Your task to perform on an android device: Search for the new Jordans on Nike.com Image 0: 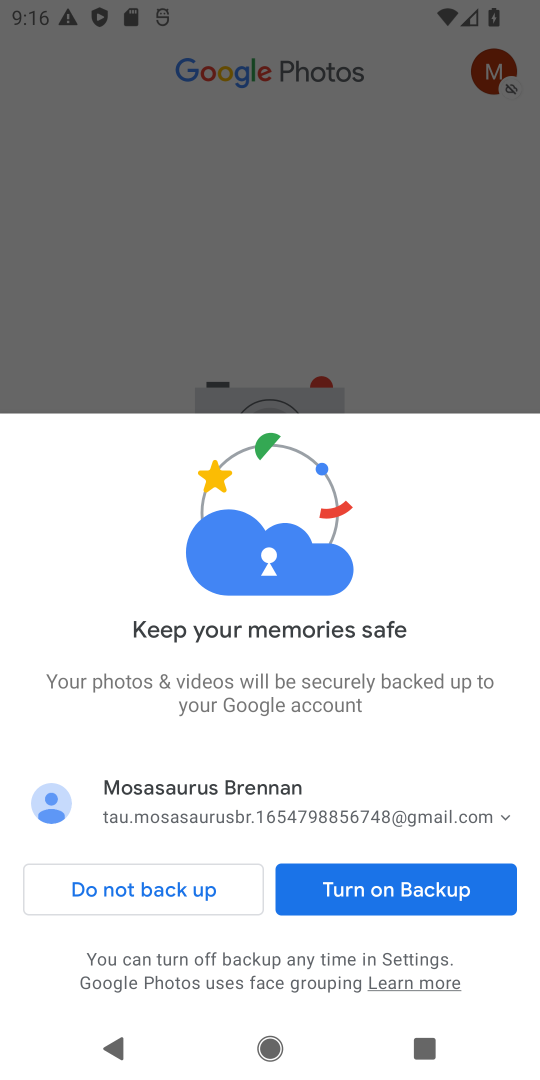
Step 0: press home button
Your task to perform on an android device: Search for the new Jordans on Nike.com Image 1: 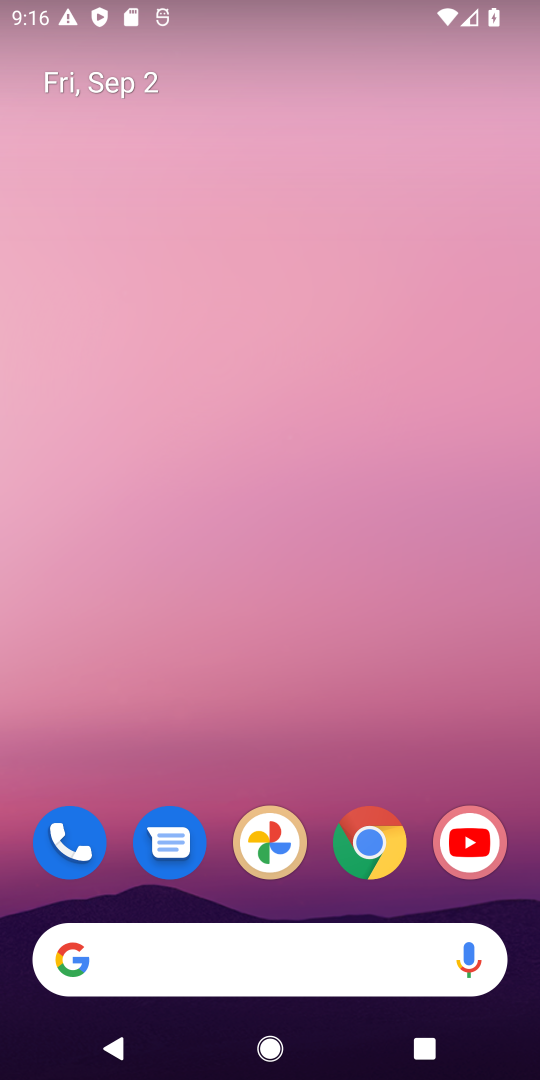
Step 1: drag from (159, 886) to (294, 181)
Your task to perform on an android device: Search for the new Jordans on Nike.com Image 2: 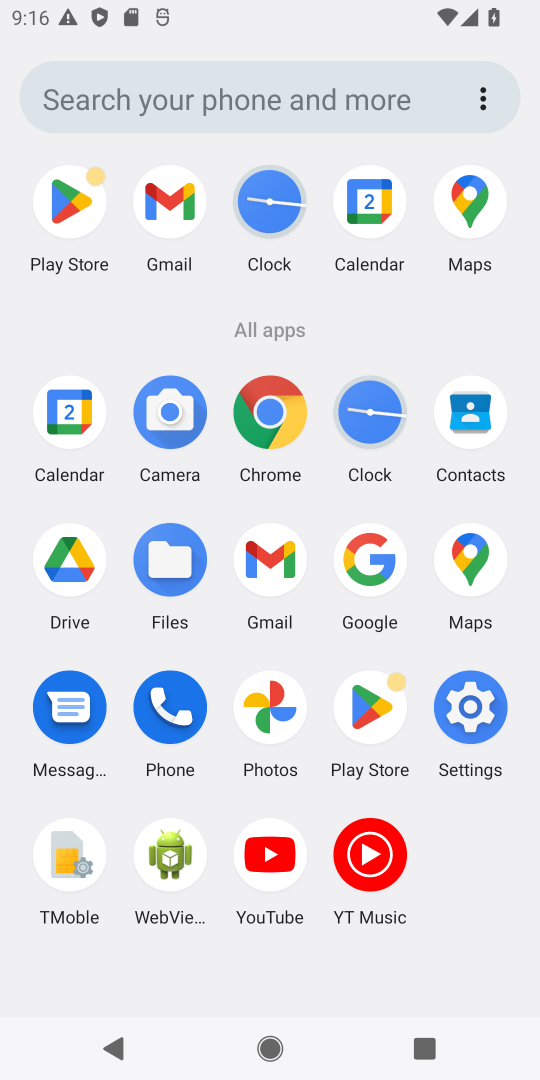
Step 2: click (262, 416)
Your task to perform on an android device: Search for the new Jordans on Nike.com Image 3: 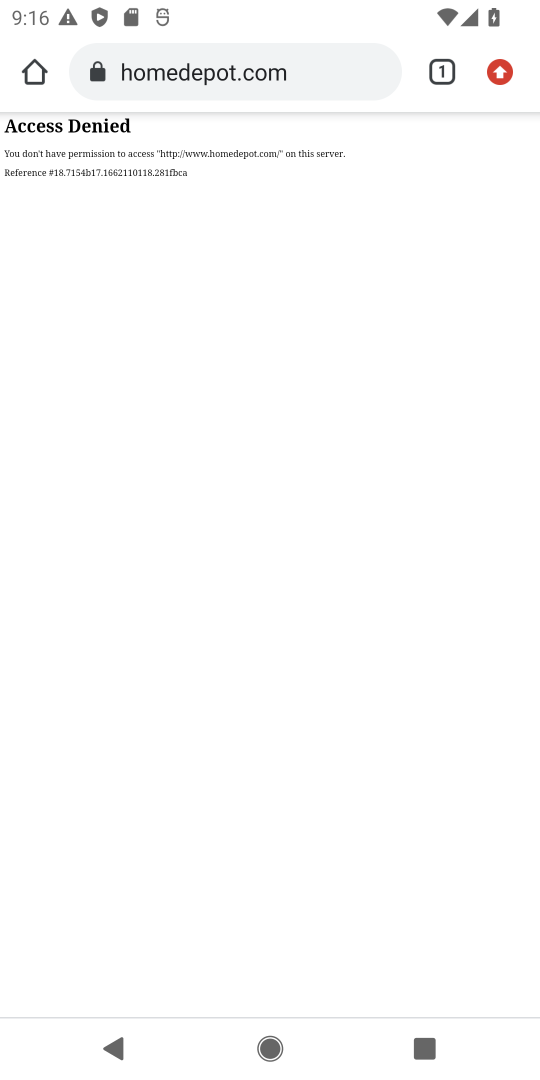
Step 3: click (303, 59)
Your task to perform on an android device: Search for the new Jordans on Nike.com Image 4: 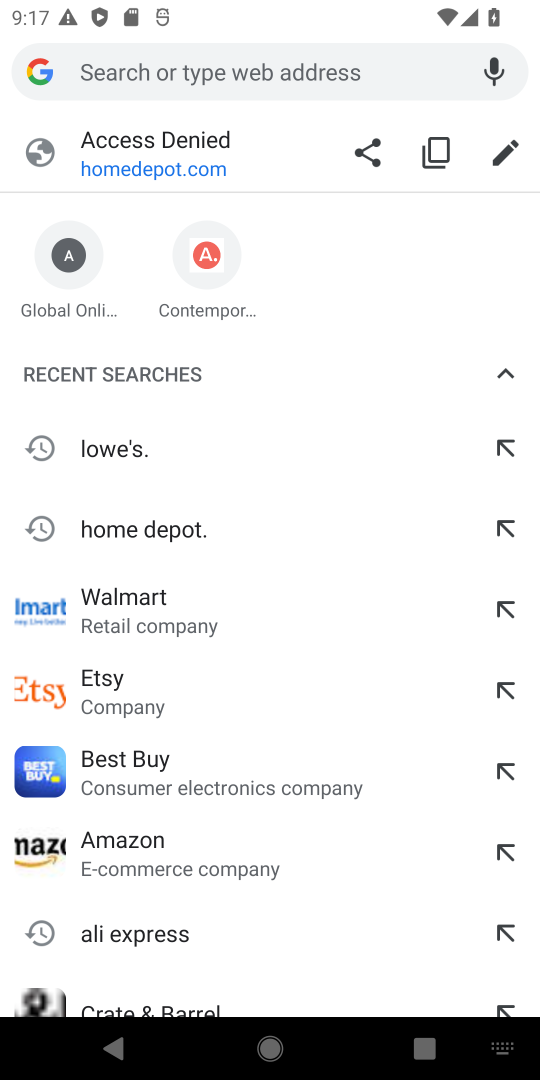
Step 4: type "Nike.com"
Your task to perform on an android device: Search for the new Jordans on Nike.com Image 5: 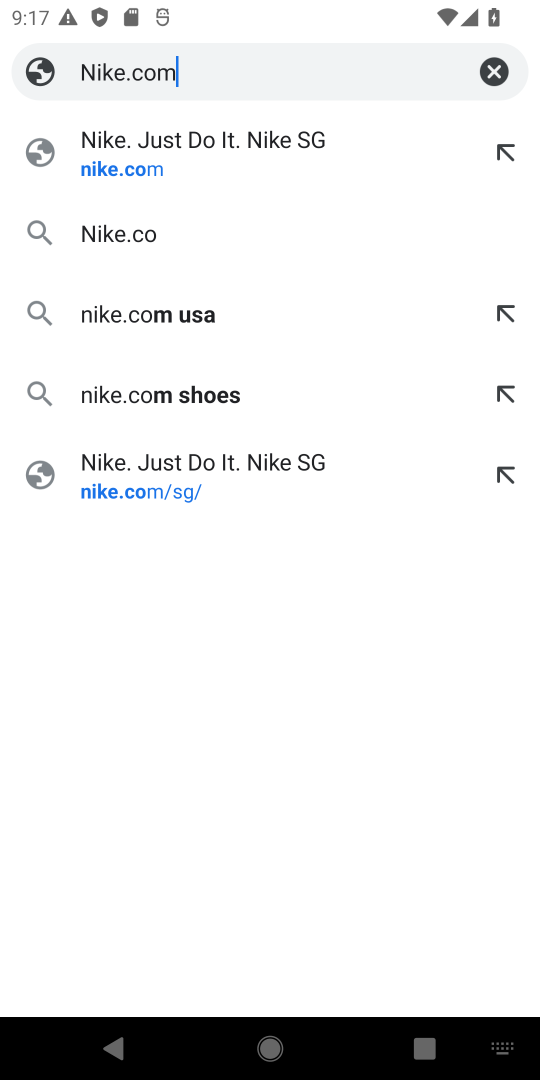
Step 5: press enter
Your task to perform on an android device: Search for the new Jordans on Nike.com Image 6: 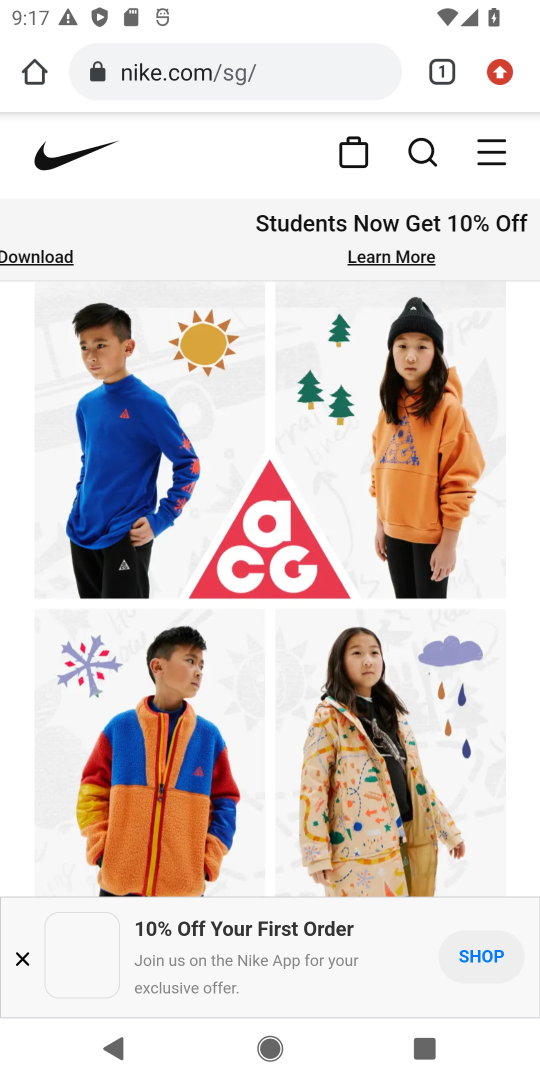
Step 6: click (412, 141)
Your task to perform on an android device: Search for the new Jordans on Nike.com Image 7: 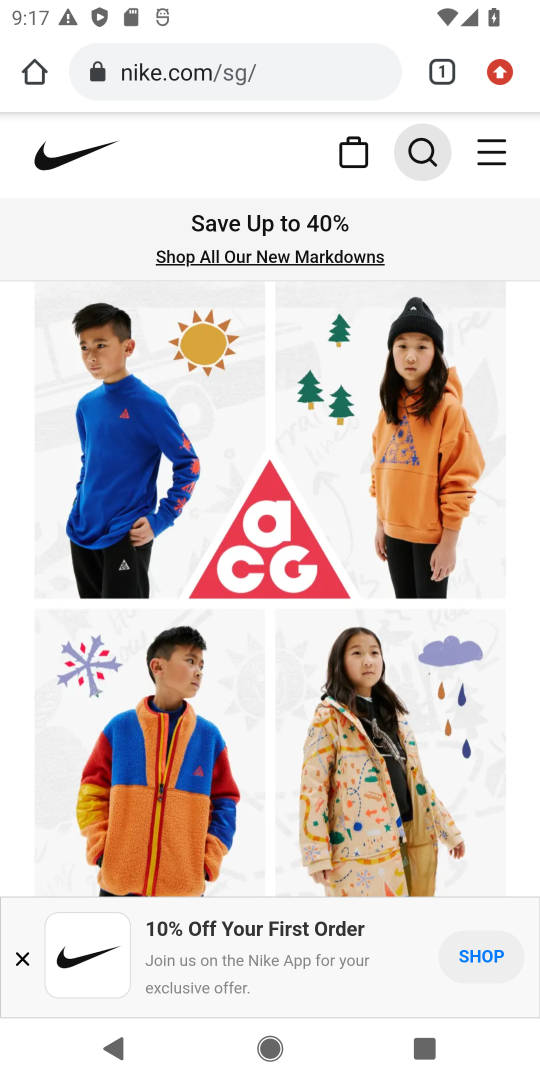
Step 7: click (412, 167)
Your task to perform on an android device: Search for the new Jordans on Nike.com Image 8: 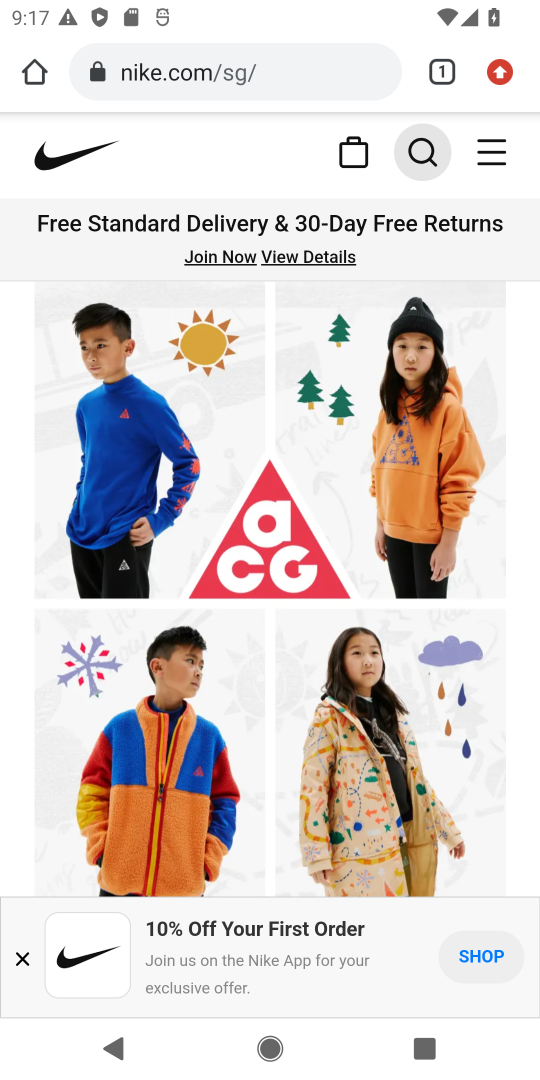
Step 8: click (415, 157)
Your task to perform on an android device: Search for the new Jordans on Nike.com Image 9: 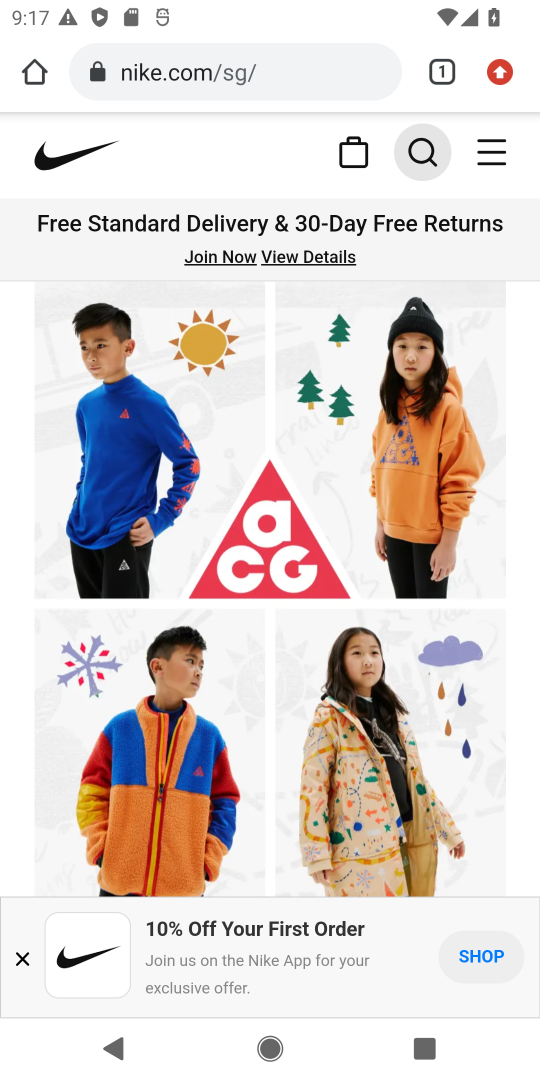
Step 9: click (473, 955)
Your task to perform on an android device: Search for the new Jordans on Nike.com Image 10: 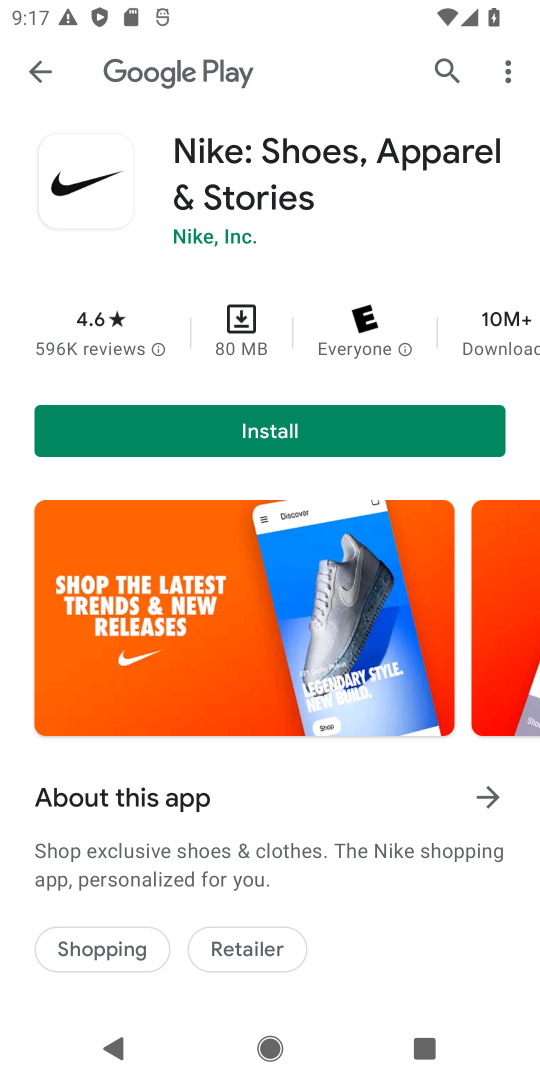
Step 10: press back button
Your task to perform on an android device: Search for the new Jordans on Nike.com Image 11: 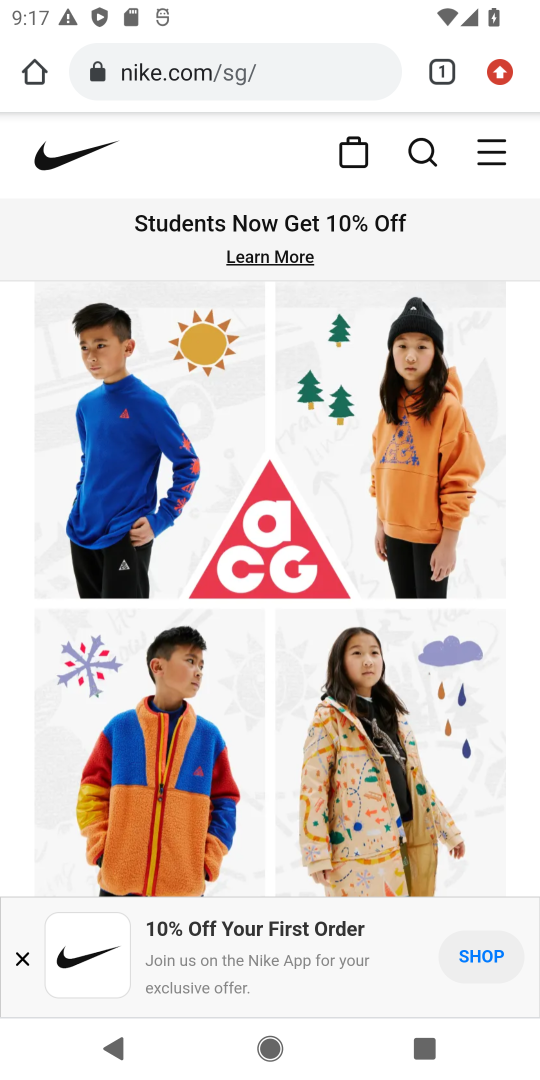
Step 11: click (115, 159)
Your task to perform on an android device: Search for the new Jordans on Nike.com Image 12: 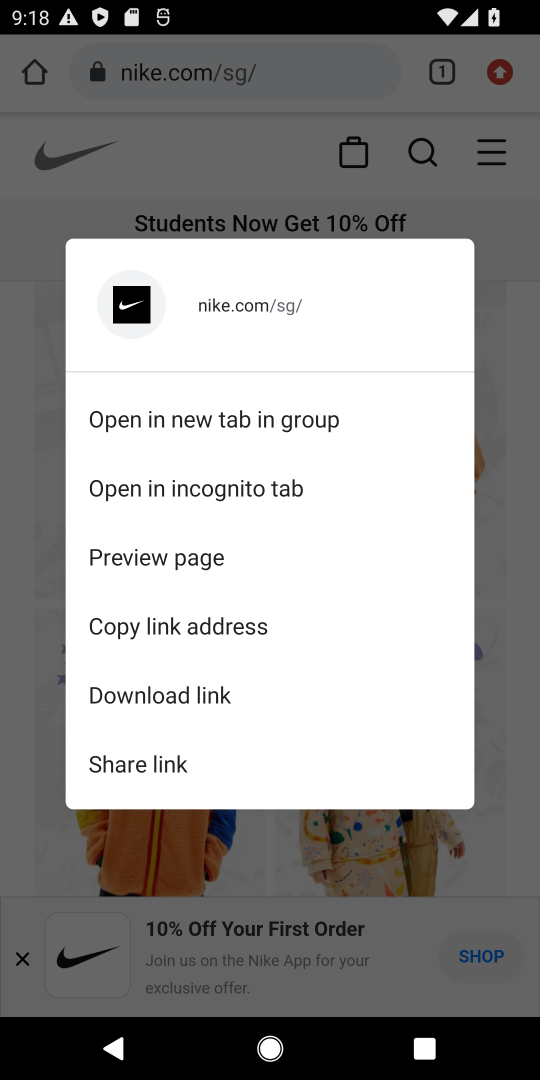
Step 12: click (256, 432)
Your task to perform on an android device: Search for the new Jordans on Nike.com Image 13: 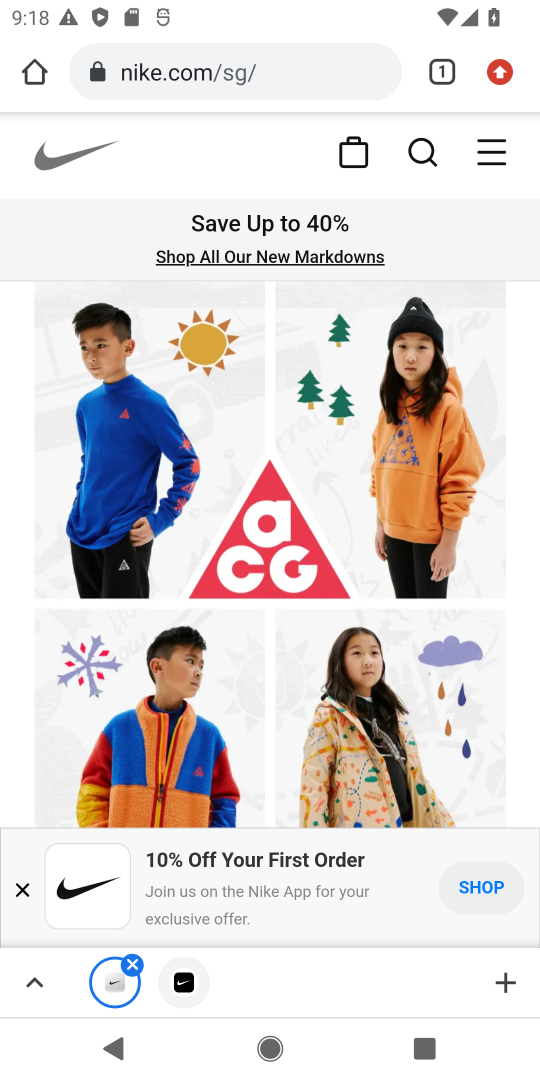
Step 13: click (124, 973)
Your task to perform on an android device: Search for the new Jordans on Nike.com Image 14: 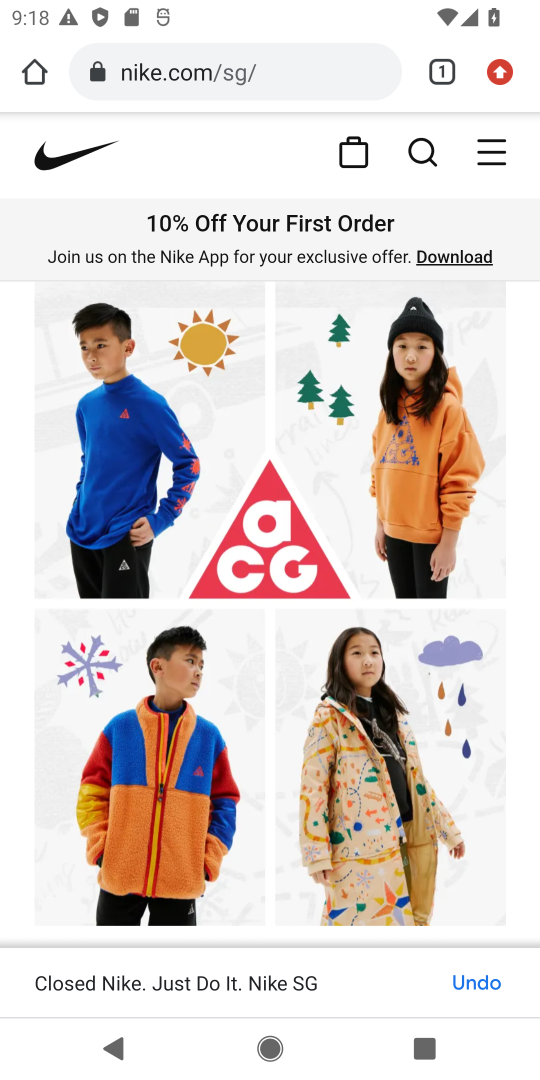
Step 14: click (411, 152)
Your task to perform on an android device: Search for the new Jordans on Nike.com Image 15: 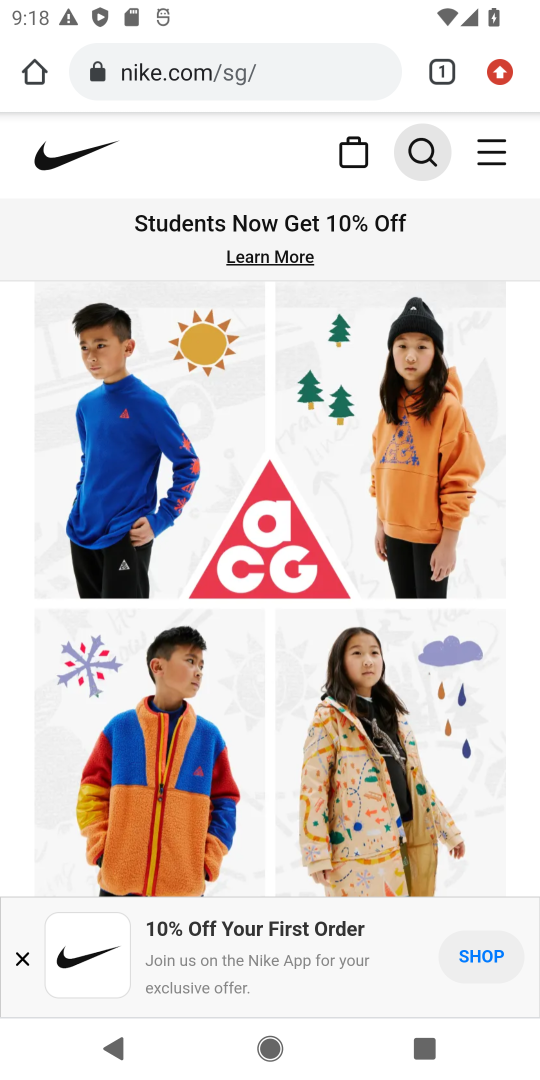
Step 15: click (405, 174)
Your task to perform on an android device: Search for the new Jordans on Nike.com Image 16: 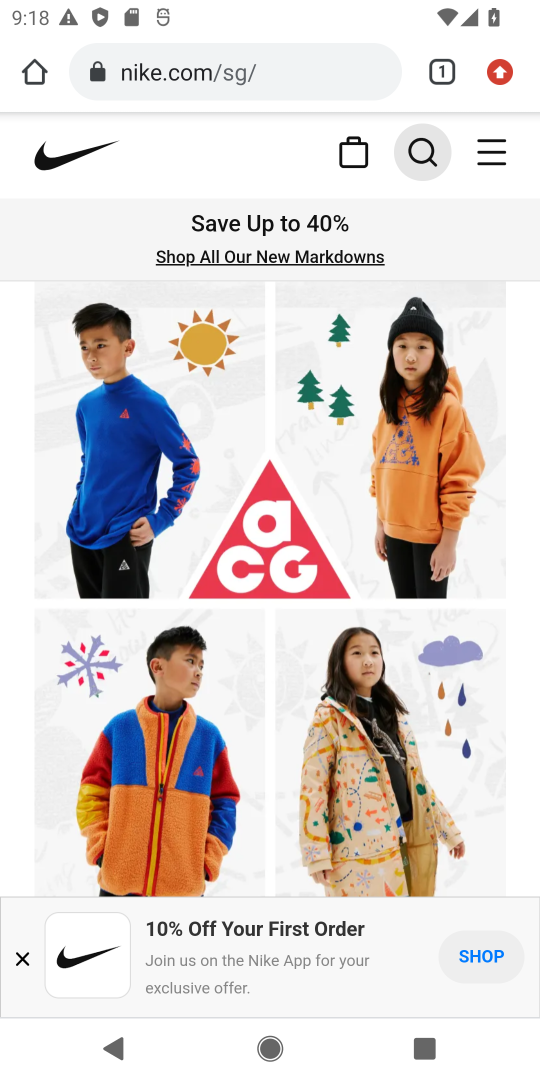
Step 16: click (410, 164)
Your task to perform on an android device: Search for the new Jordans on Nike.com Image 17: 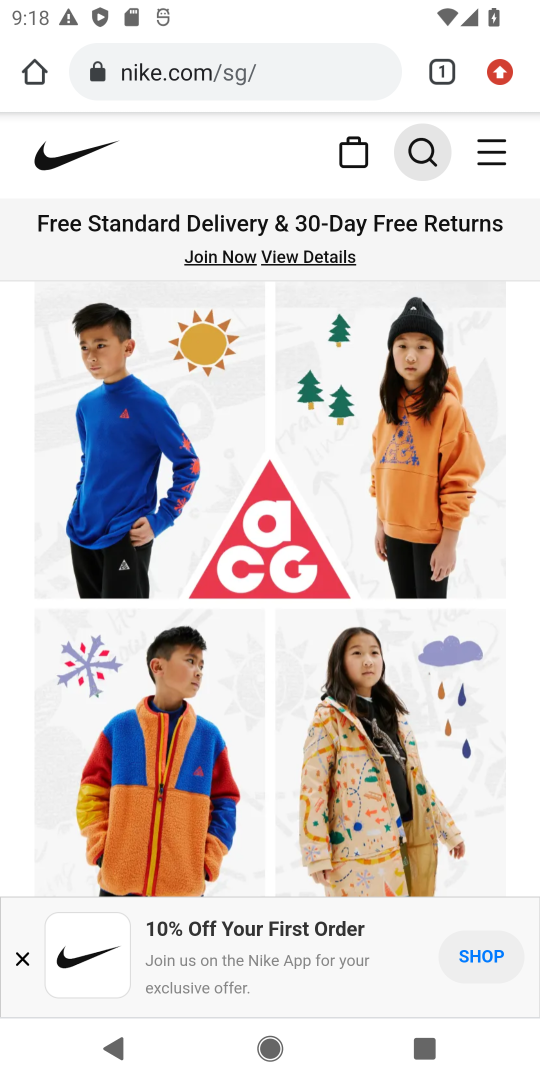
Step 17: click (416, 152)
Your task to perform on an android device: Search for the new Jordans on Nike.com Image 18: 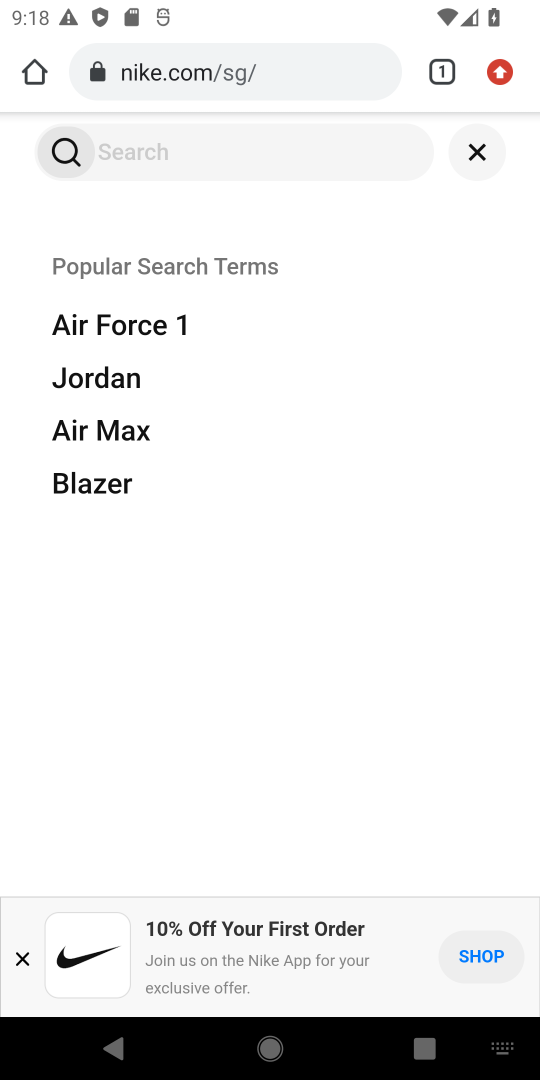
Step 18: type "new Jordans"
Your task to perform on an android device: Search for the new Jordans on Nike.com Image 19: 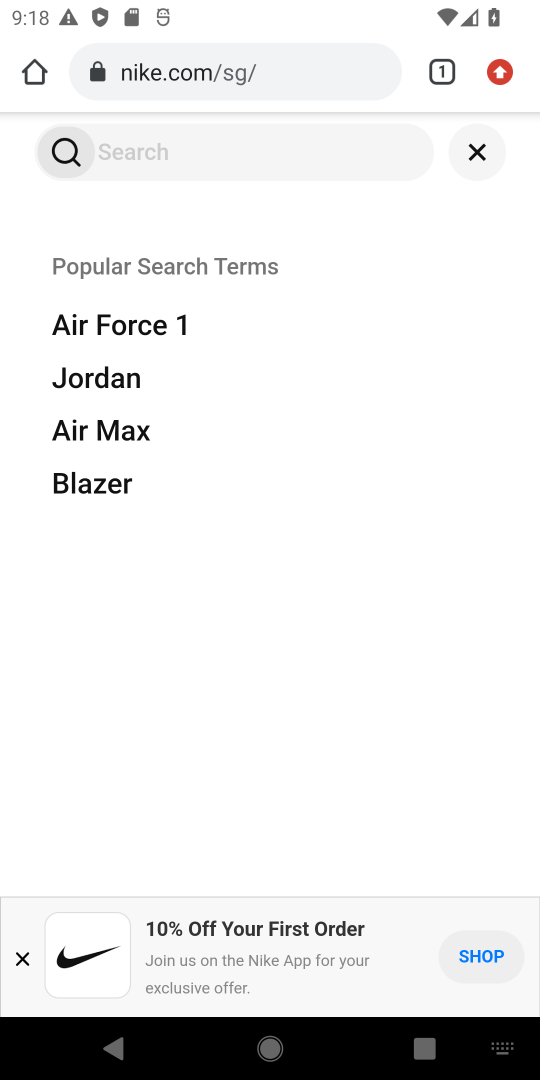
Step 19: press enter
Your task to perform on an android device: Search for the new Jordans on Nike.com Image 20: 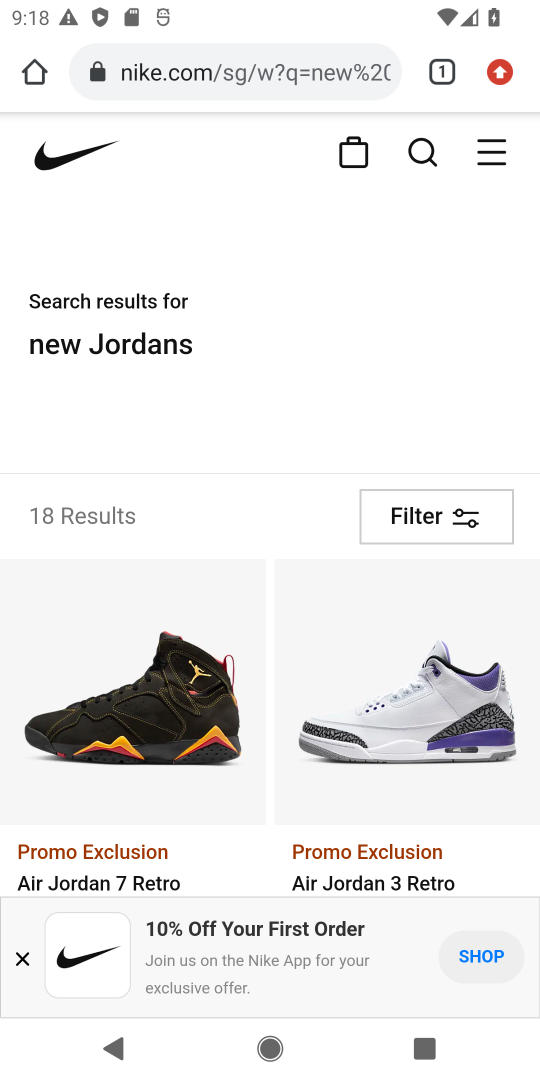
Step 20: click (241, 326)
Your task to perform on an android device: Search for the new Jordans on Nike.com Image 21: 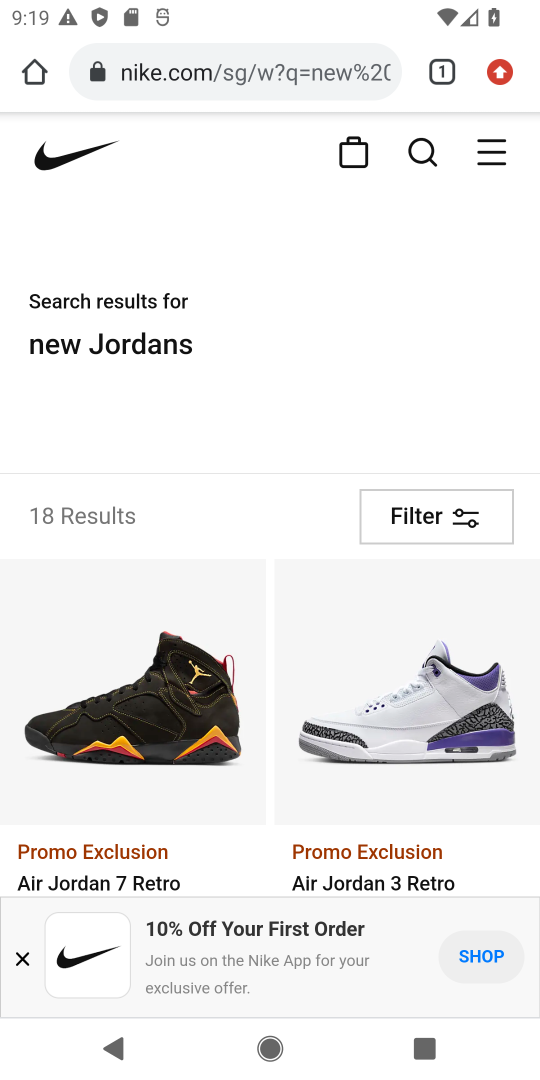
Step 21: task complete